Your task to perform on an android device: create a new album in the google photos Image 0: 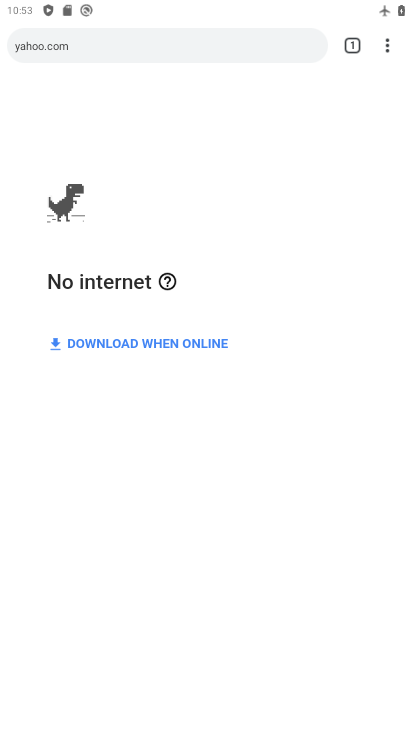
Step 0: press home button
Your task to perform on an android device: create a new album in the google photos Image 1: 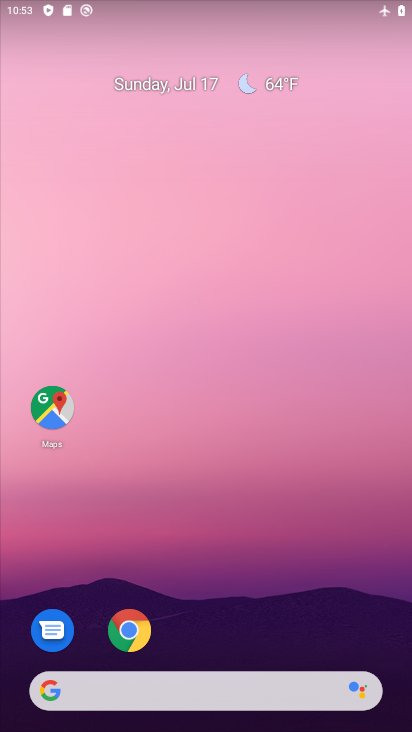
Step 1: drag from (364, 635) to (295, 192)
Your task to perform on an android device: create a new album in the google photos Image 2: 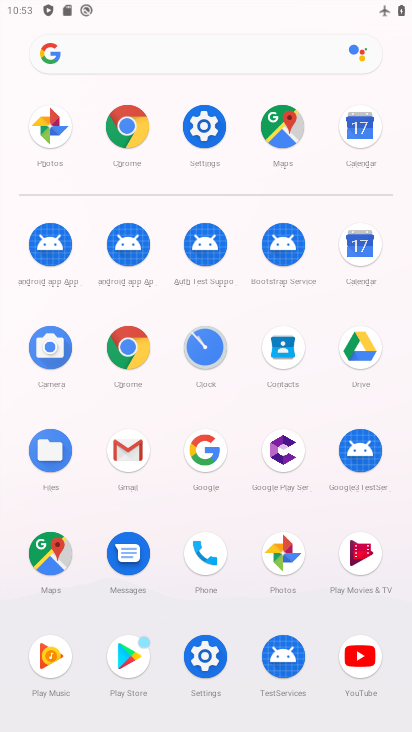
Step 2: click (281, 551)
Your task to perform on an android device: create a new album in the google photos Image 3: 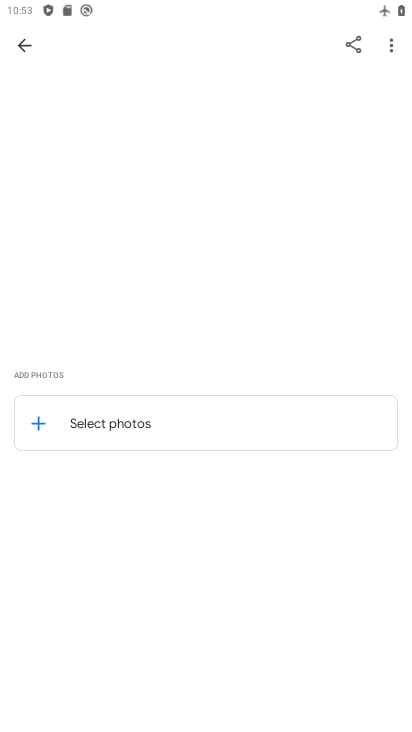
Step 3: task complete